Your task to perform on an android device: all mails in gmail Image 0: 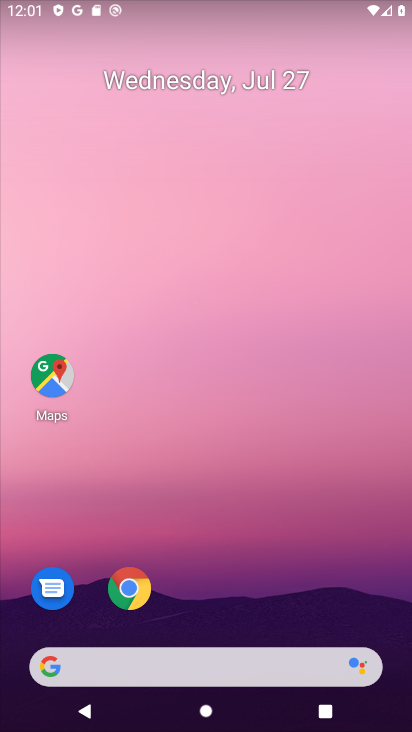
Step 0: drag from (391, 603) to (374, 104)
Your task to perform on an android device: all mails in gmail Image 1: 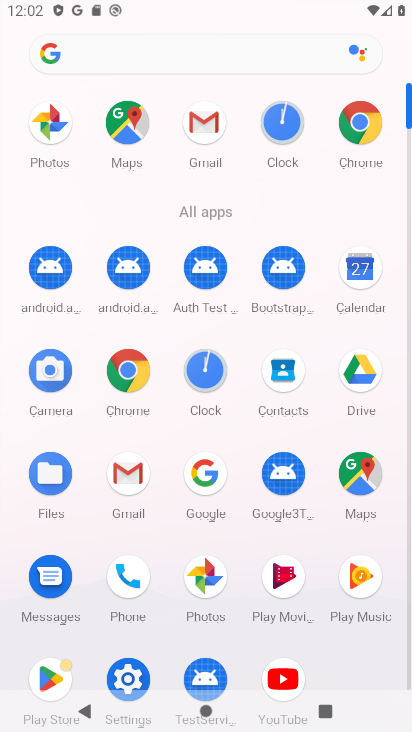
Step 1: click (137, 473)
Your task to perform on an android device: all mails in gmail Image 2: 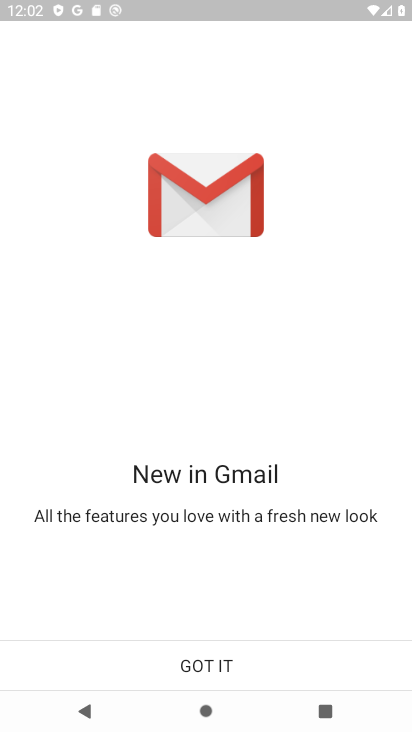
Step 2: click (207, 664)
Your task to perform on an android device: all mails in gmail Image 3: 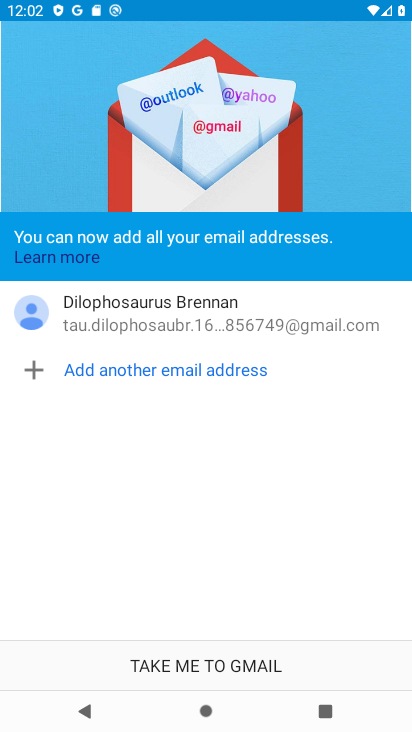
Step 3: click (208, 660)
Your task to perform on an android device: all mails in gmail Image 4: 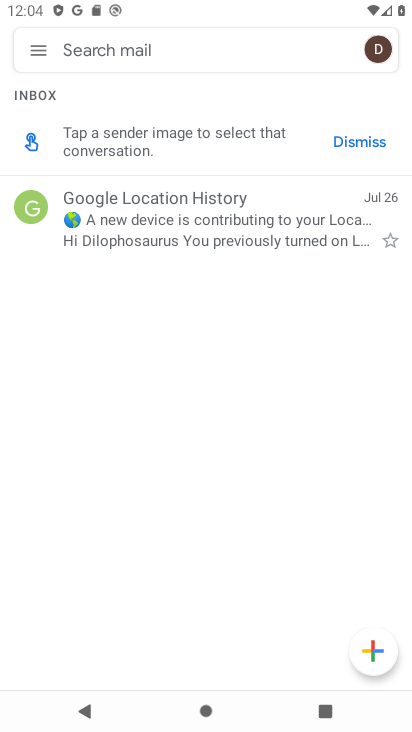
Step 4: task complete